Your task to perform on an android device: turn smart compose on in the gmail app Image 0: 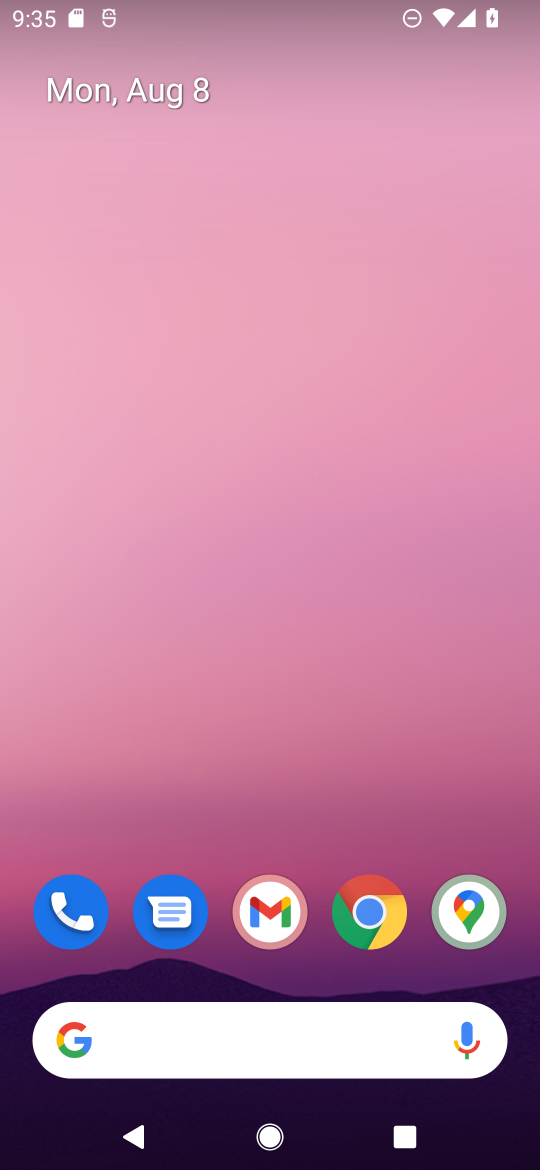
Step 0: drag from (415, 937) to (170, 33)
Your task to perform on an android device: turn smart compose on in the gmail app Image 1: 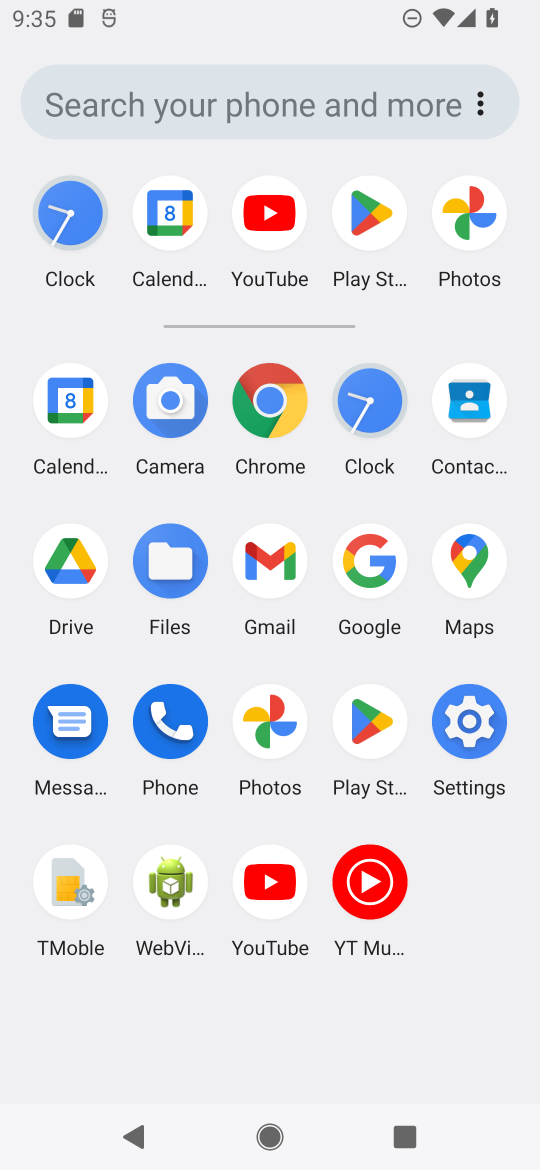
Step 1: click (292, 572)
Your task to perform on an android device: turn smart compose on in the gmail app Image 2: 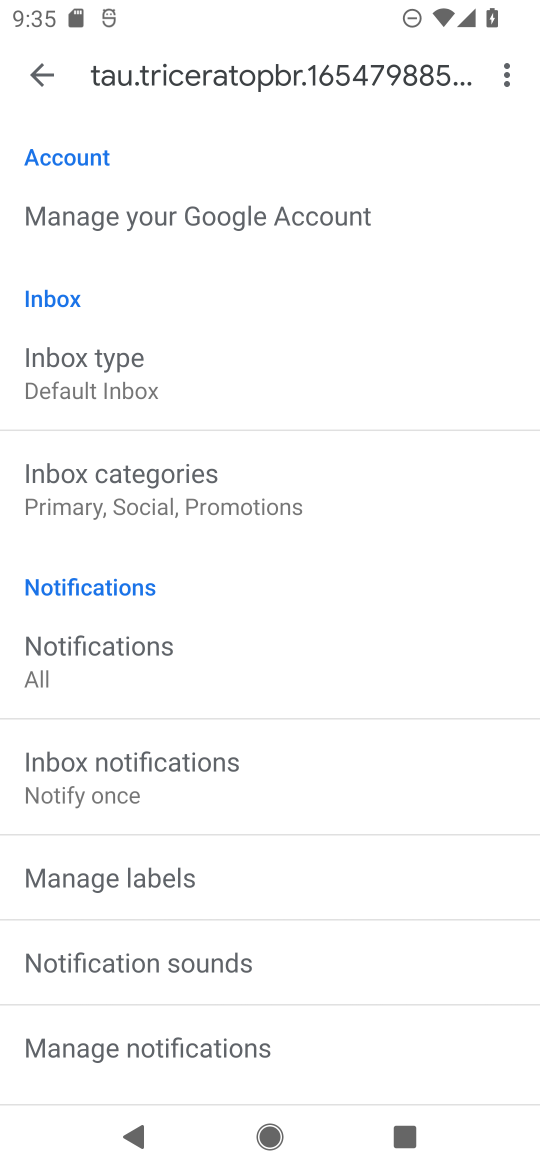
Step 2: task complete